Your task to perform on an android device: Add "energizer triple a" to the cart on newegg, then select checkout. Image 0: 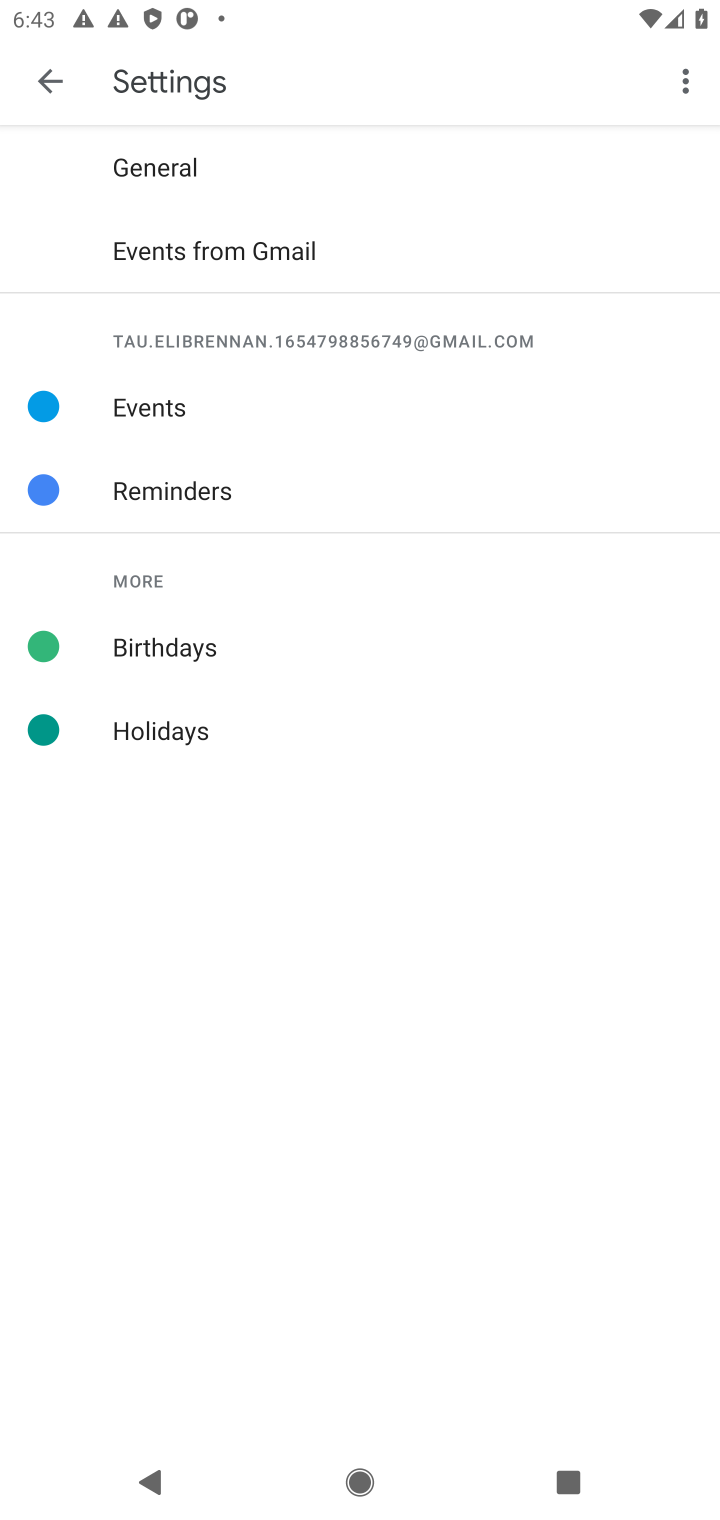
Step 0: press home button
Your task to perform on an android device: Add "energizer triple a" to the cart on newegg, then select checkout. Image 1: 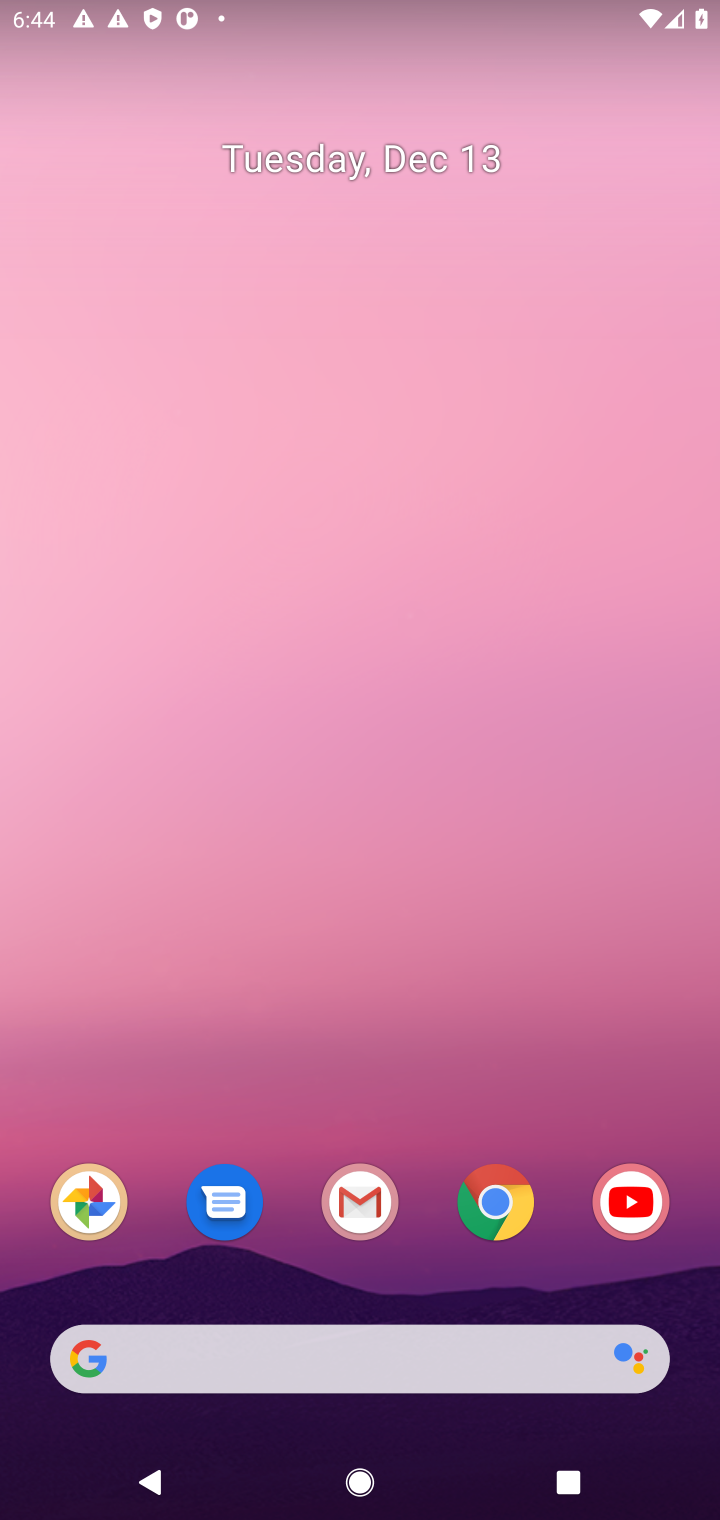
Step 1: click (483, 1203)
Your task to perform on an android device: Add "energizer triple a" to the cart on newegg, then select checkout. Image 2: 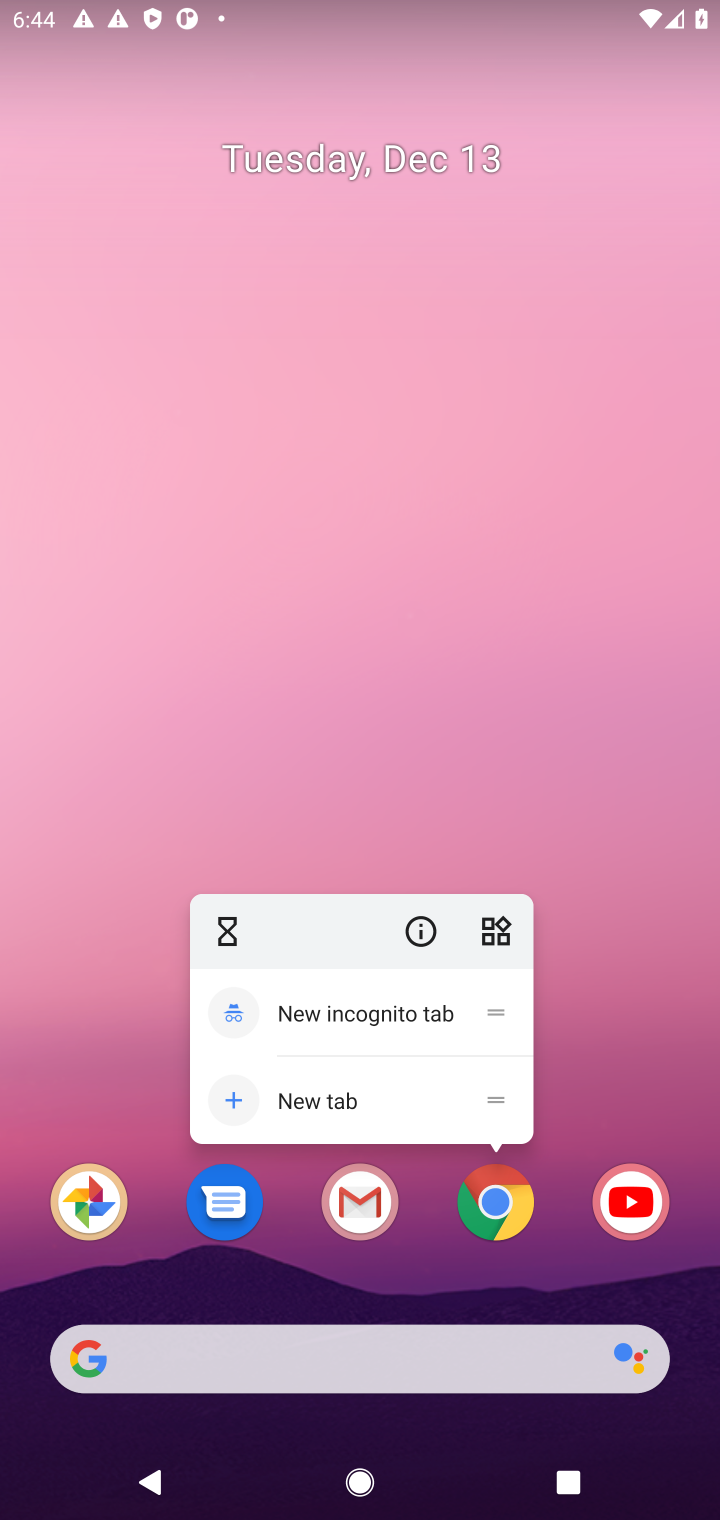
Step 2: click (492, 1211)
Your task to perform on an android device: Add "energizer triple a" to the cart on newegg, then select checkout. Image 3: 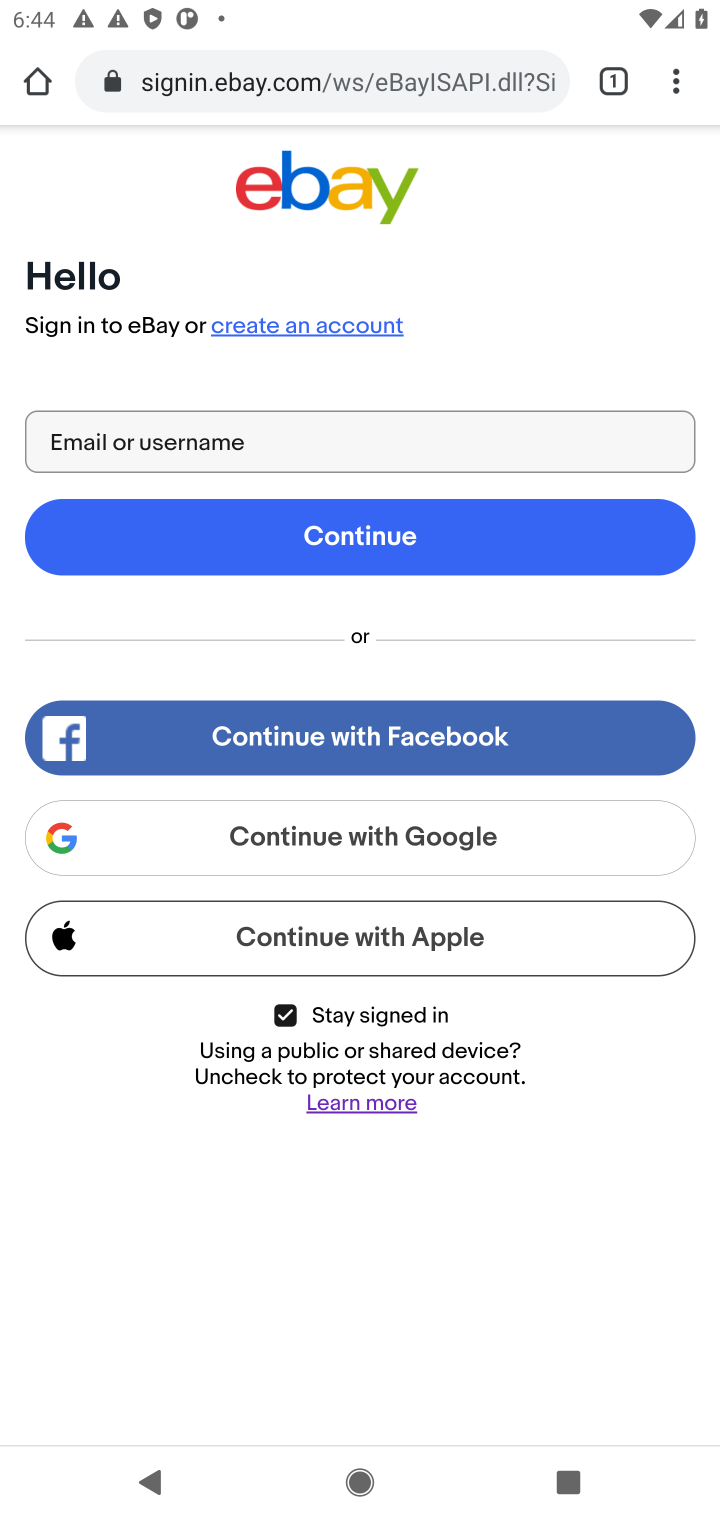
Step 3: click (286, 93)
Your task to perform on an android device: Add "energizer triple a" to the cart on newegg, then select checkout. Image 4: 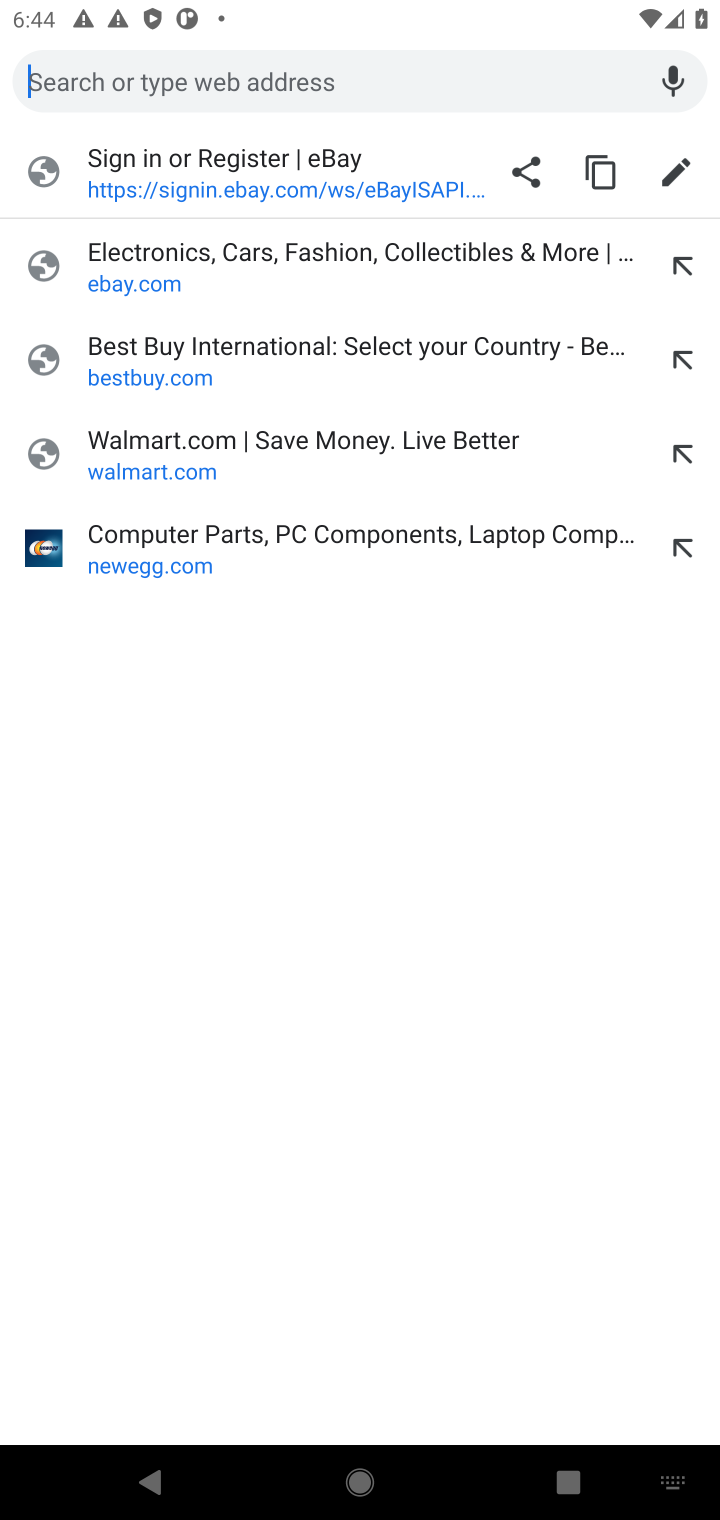
Step 4: click (137, 549)
Your task to perform on an android device: Add "energizer triple a" to the cart on newegg, then select checkout. Image 5: 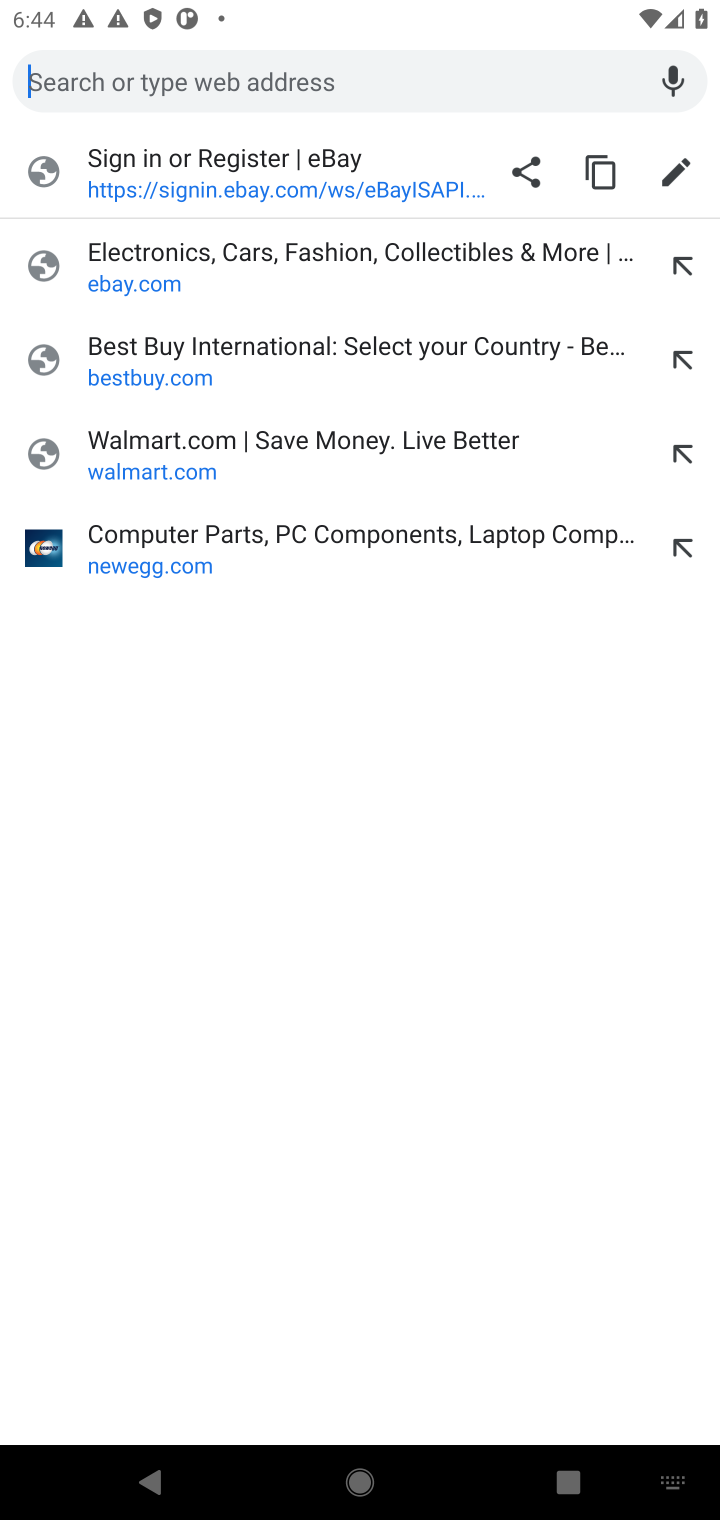
Step 5: click (136, 567)
Your task to perform on an android device: Add "energizer triple a" to the cart on newegg, then select checkout. Image 6: 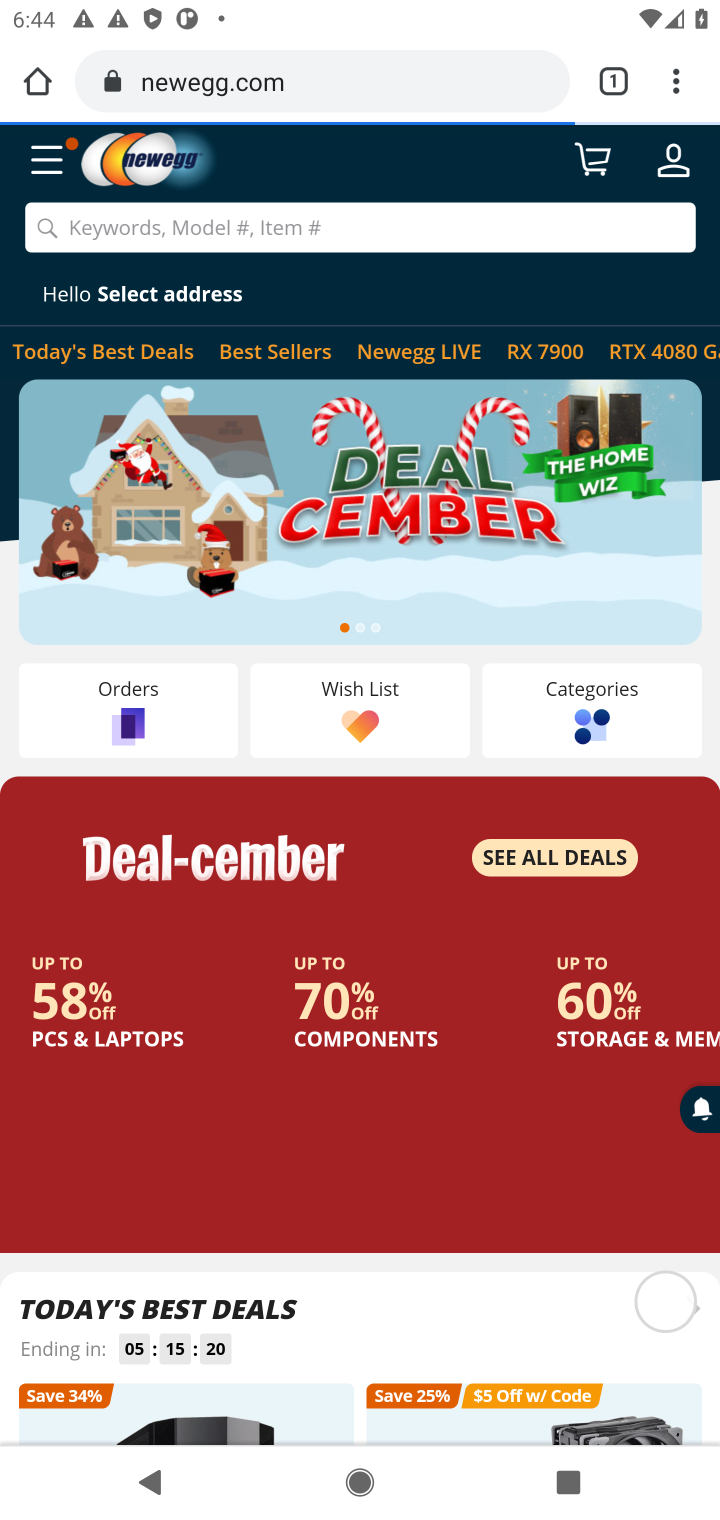
Step 6: click (249, 230)
Your task to perform on an android device: Add "energizer triple a" to the cart on newegg, then select checkout. Image 7: 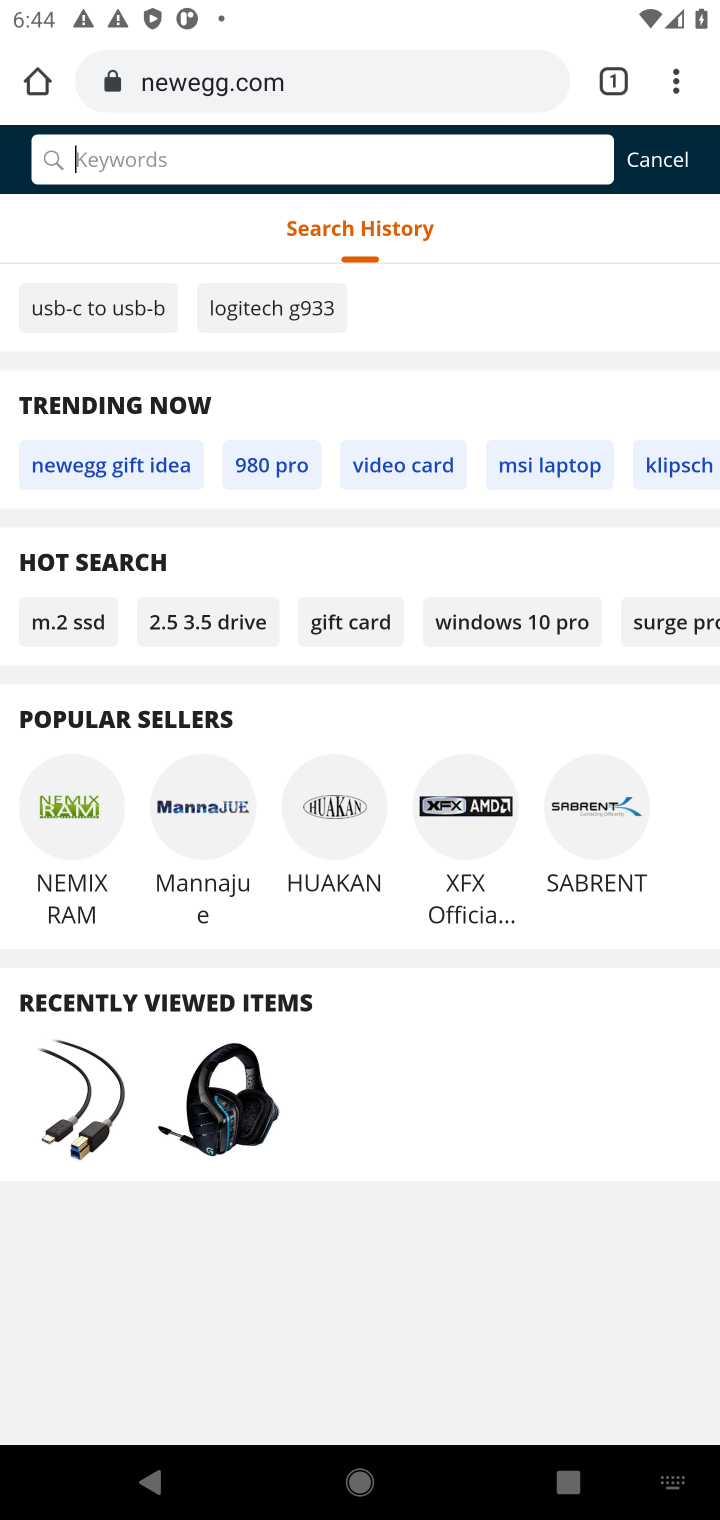
Step 7: type "energizer triple a"
Your task to perform on an android device: Add "energizer triple a" to the cart on newegg, then select checkout. Image 8: 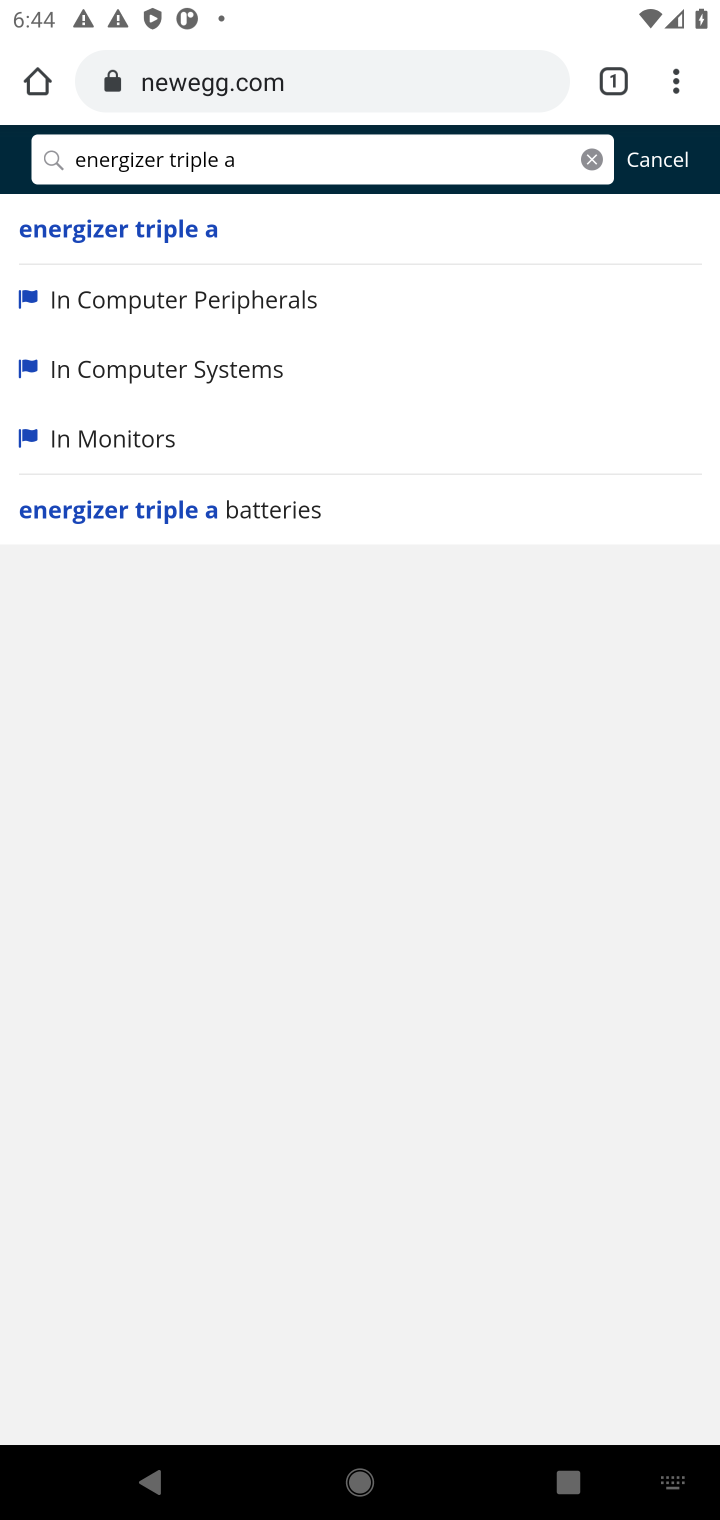
Step 8: click (155, 228)
Your task to perform on an android device: Add "energizer triple a" to the cart on newegg, then select checkout. Image 9: 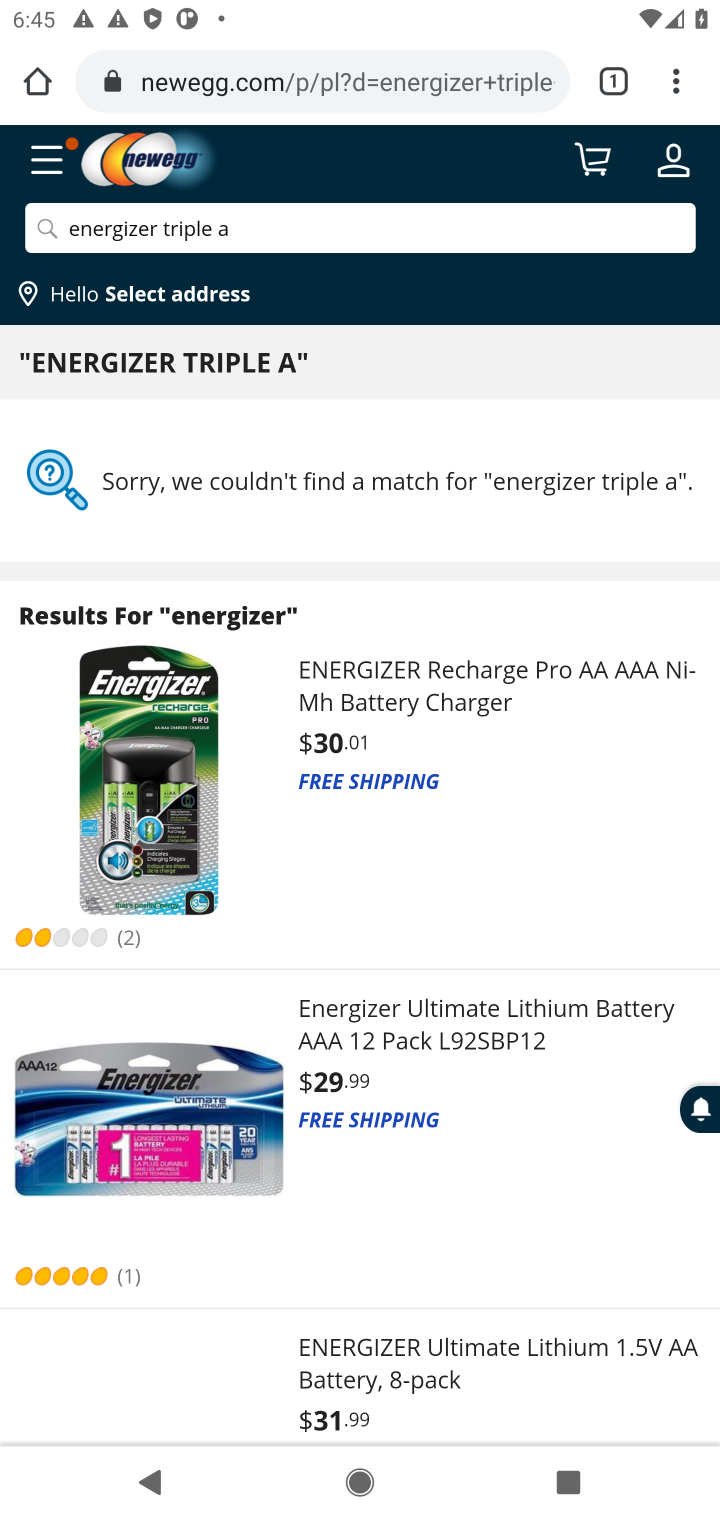
Step 9: click (367, 1034)
Your task to perform on an android device: Add "energizer triple a" to the cart on newegg, then select checkout. Image 10: 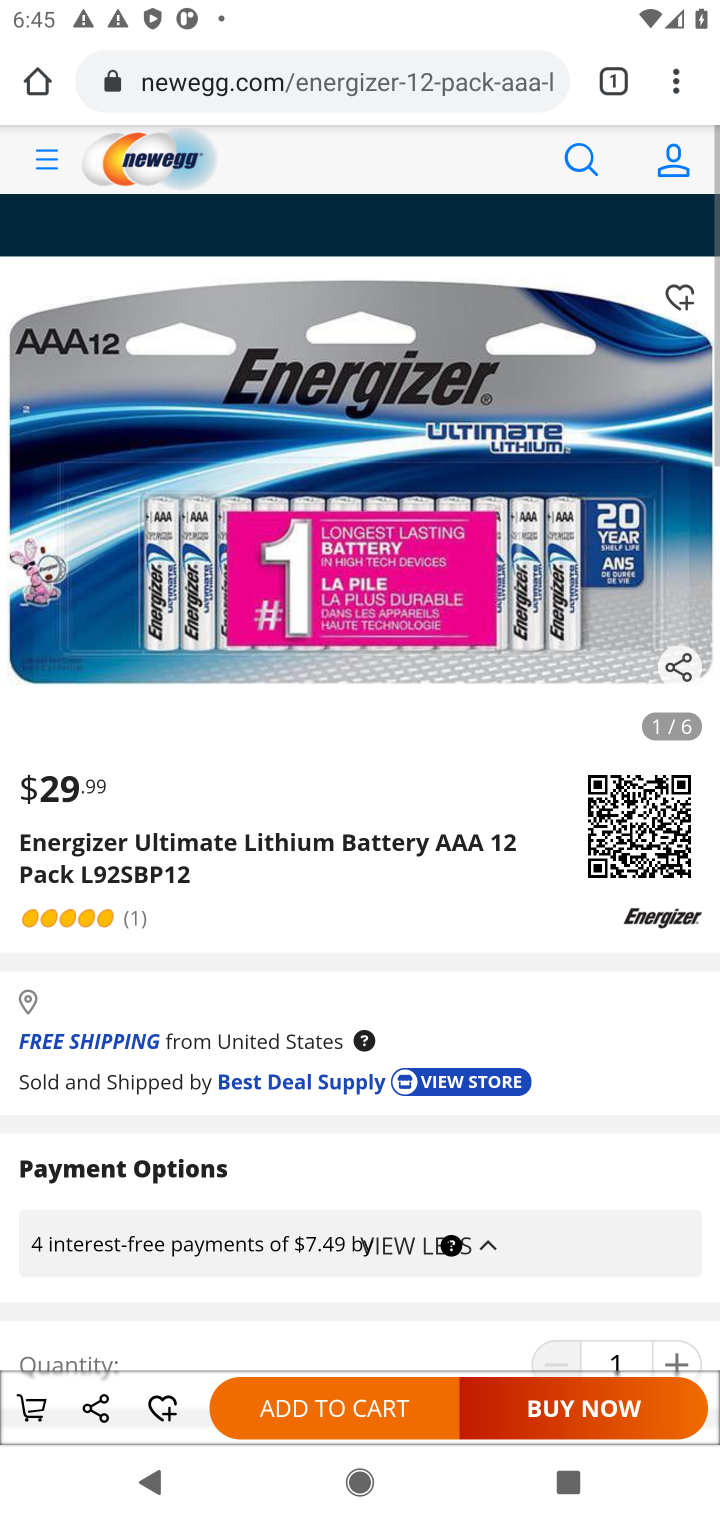
Step 10: click (309, 1406)
Your task to perform on an android device: Add "energizer triple a" to the cart on newegg, then select checkout. Image 11: 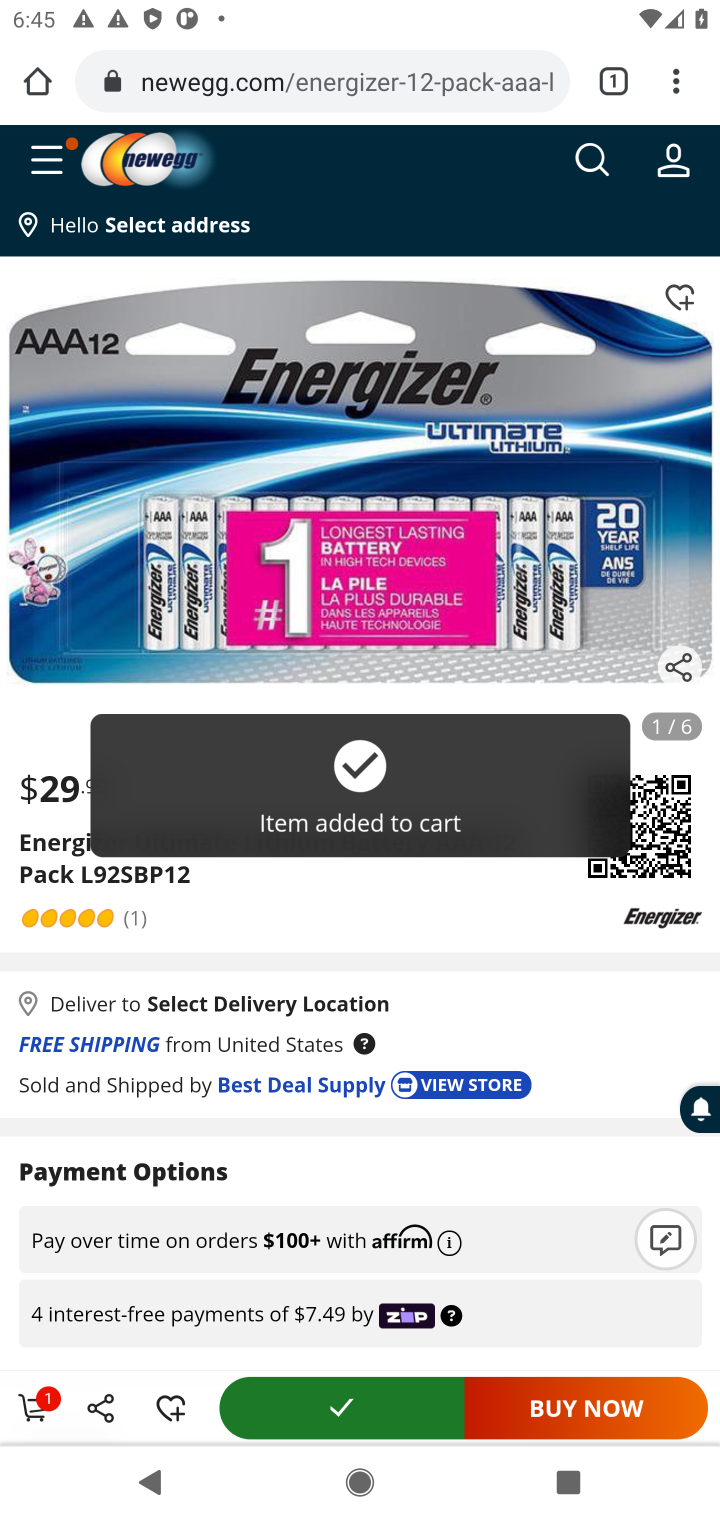
Step 11: click (32, 1415)
Your task to perform on an android device: Add "energizer triple a" to the cart on newegg, then select checkout. Image 12: 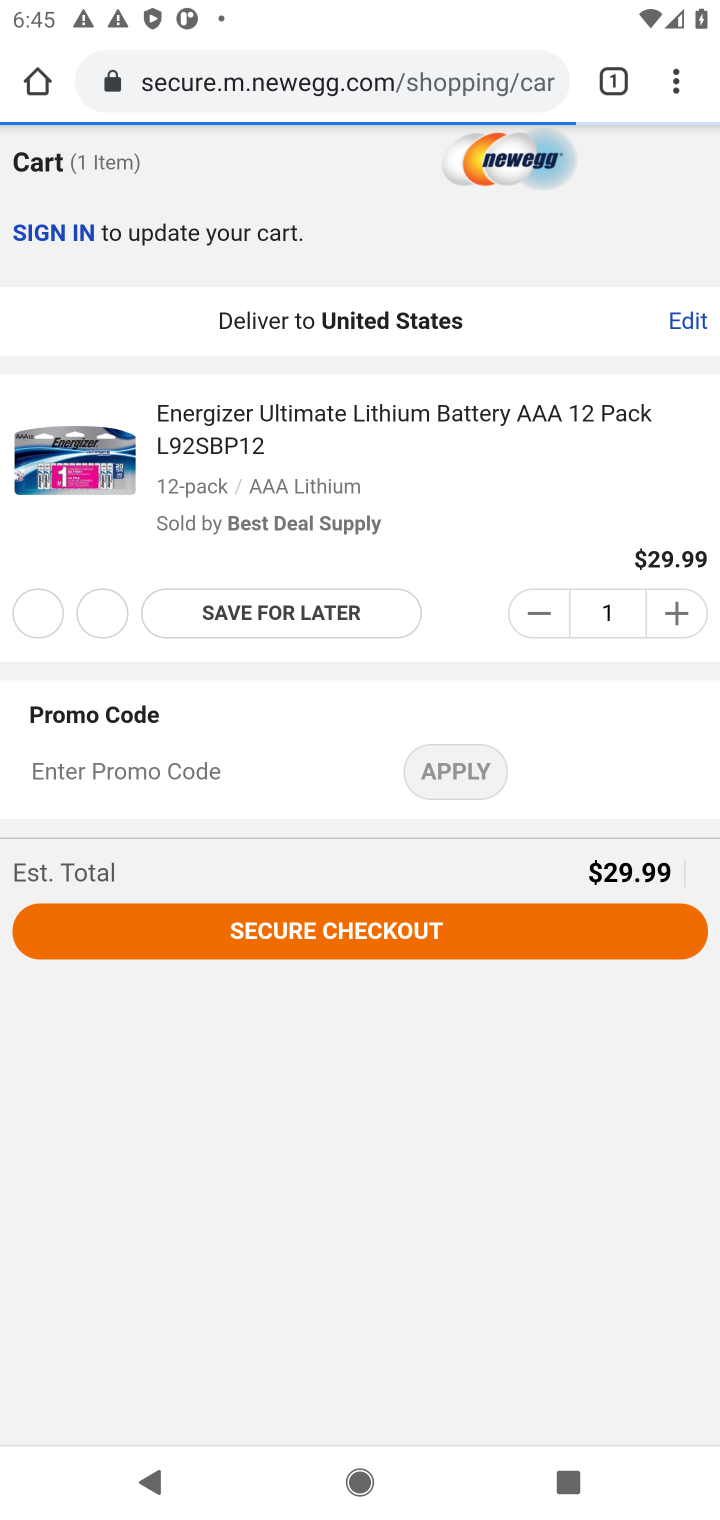
Step 12: click (301, 940)
Your task to perform on an android device: Add "energizer triple a" to the cart on newegg, then select checkout. Image 13: 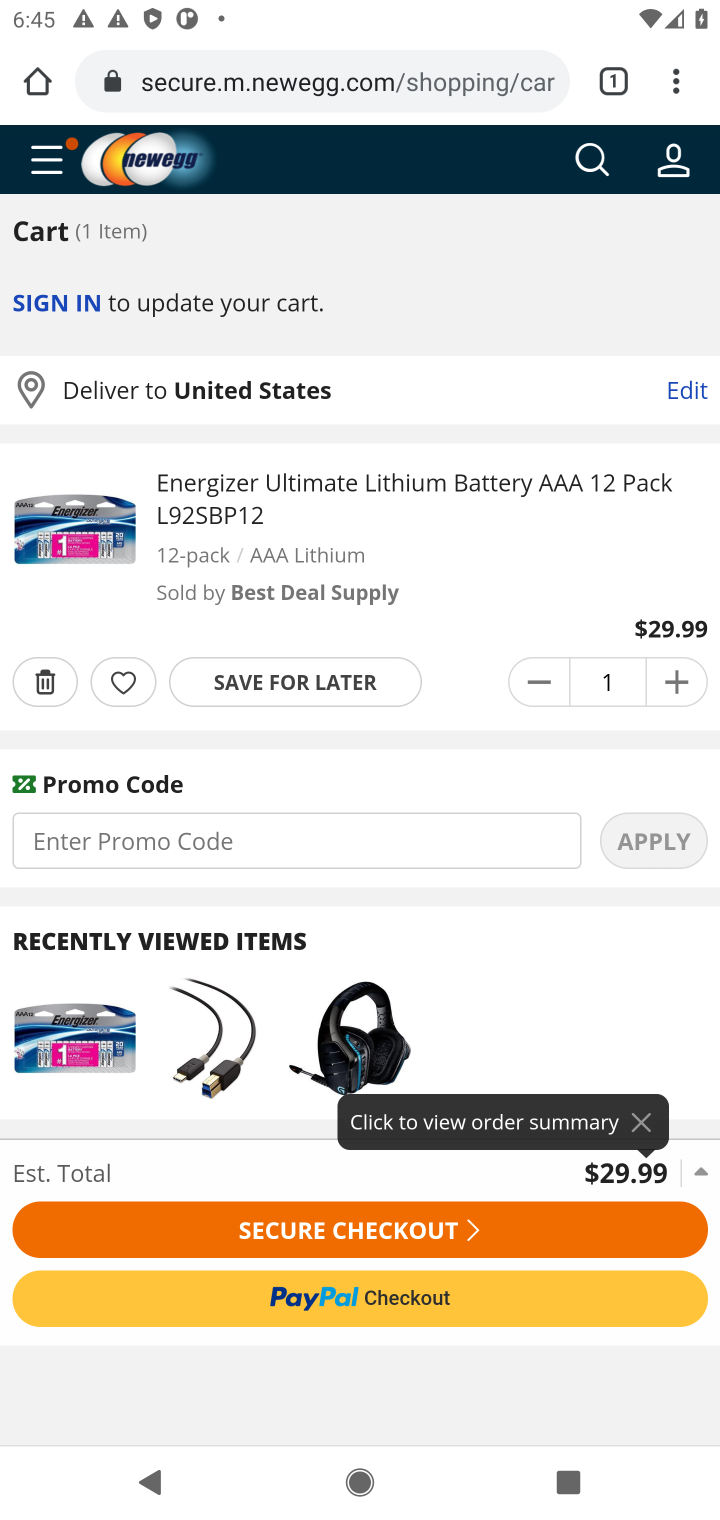
Step 13: click (298, 1227)
Your task to perform on an android device: Add "energizer triple a" to the cart on newegg, then select checkout. Image 14: 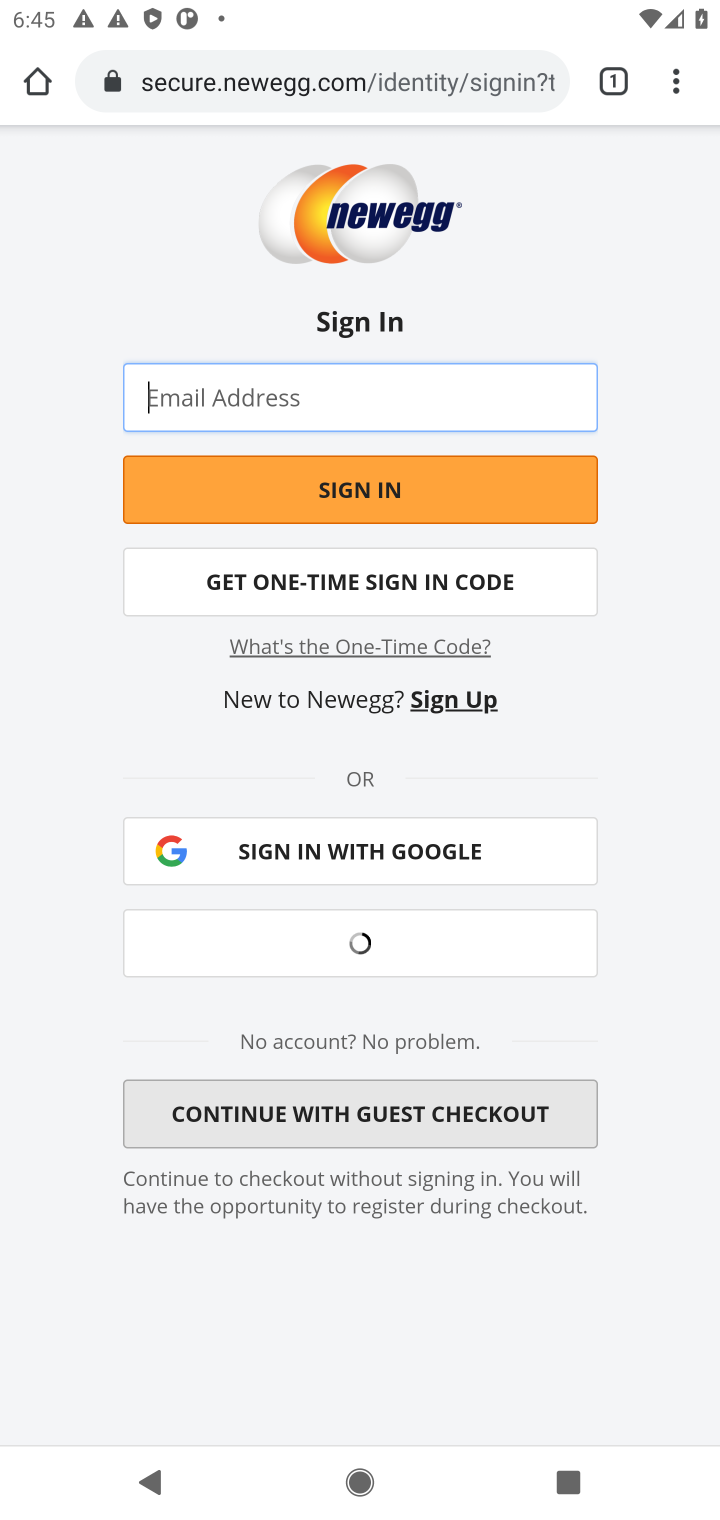
Step 14: task complete